Your task to perform on an android device: change keyboard looks Image 0: 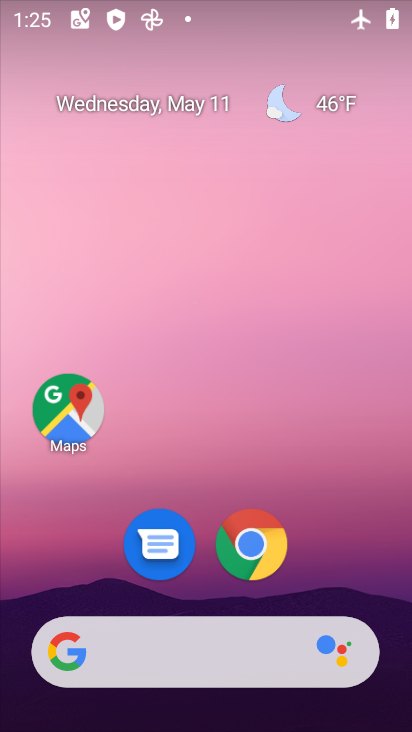
Step 0: drag from (395, 640) to (298, 11)
Your task to perform on an android device: change keyboard looks Image 1: 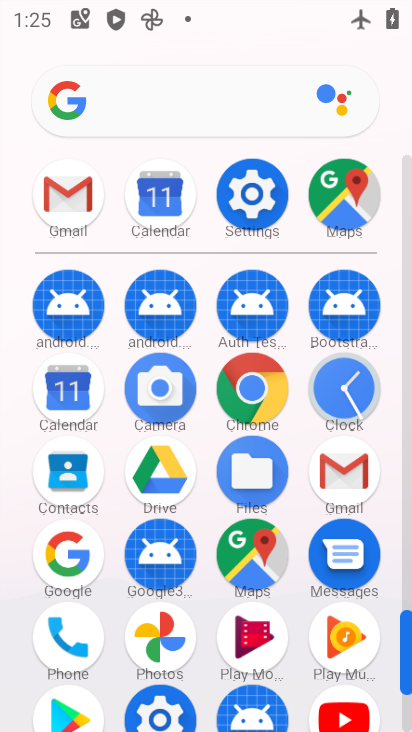
Step 1: click (409, 719)
Your task to perform on an android device: change keyboard looks Image 2: 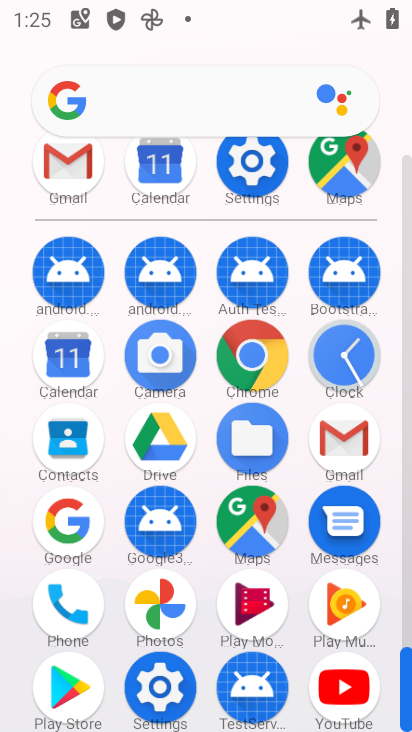
Step 2: click (160, 686)
Your task to perform on an android device: change keyboard looks Image 3: 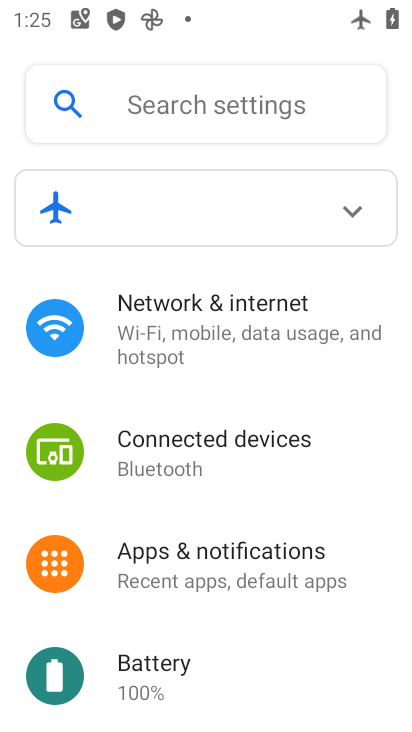
Step 3: drag from (370, 601) to (300, 91)
Your task to perform on an android device: change keyboard looks Image 4: 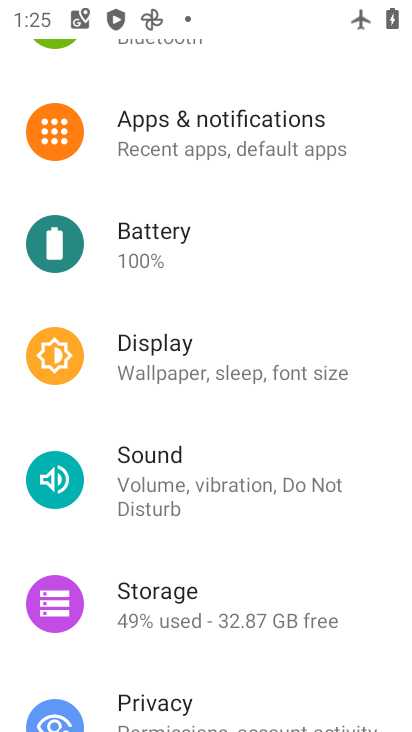
Step 4: drag from (346, 609) to (343, 148)
Your task to perform on an android device: change keyboard looks Image 5: 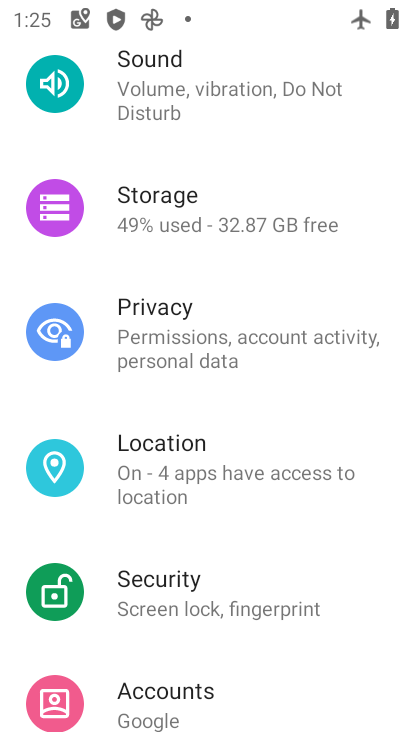
Step 5: drag from (344, 625) to (349, 137)
Your task to perform on an android device: change keyboard looks Image 6: 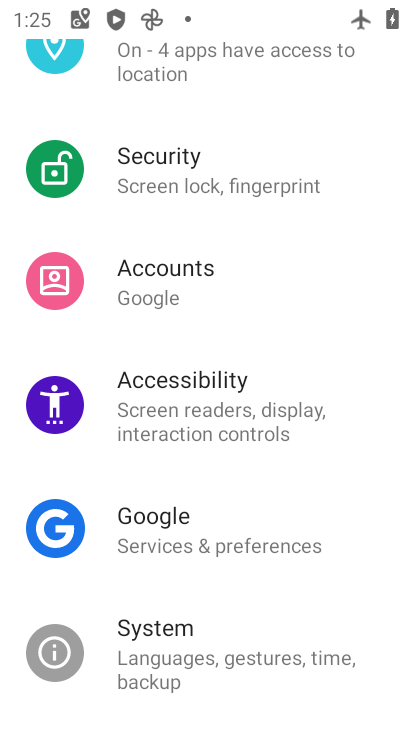
Step 6: drag from (347, 626) to (326, 129)
Your task to perform on an android device: change keyboard looks Image 7: 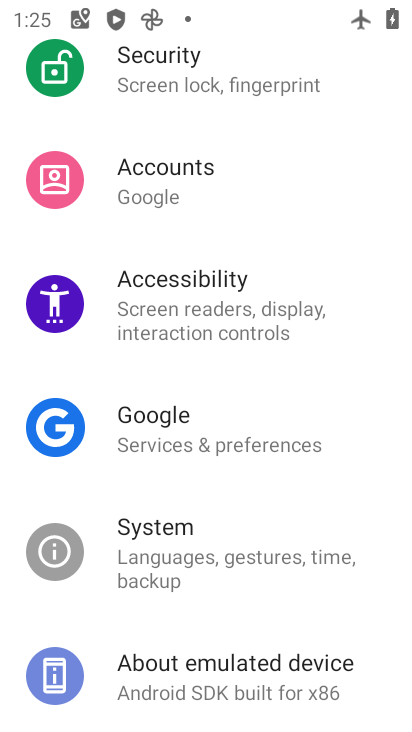
Step 7: click (159, 673)
Your task to perform on an android device: change keyboard looks Image 8: 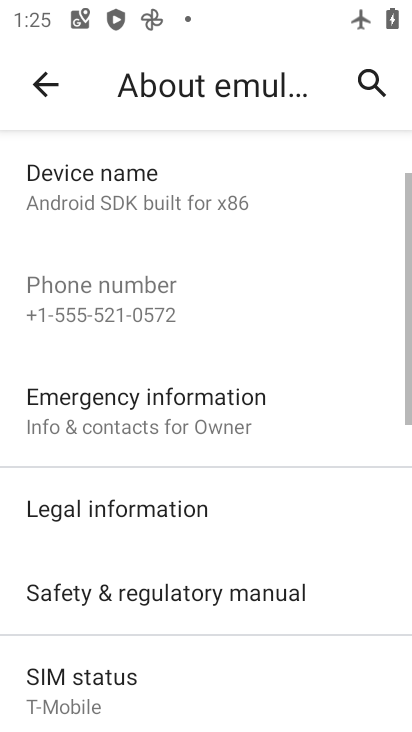
Step 8: press back button
Your task to perform on an android device: change keyboard looks Image 9: 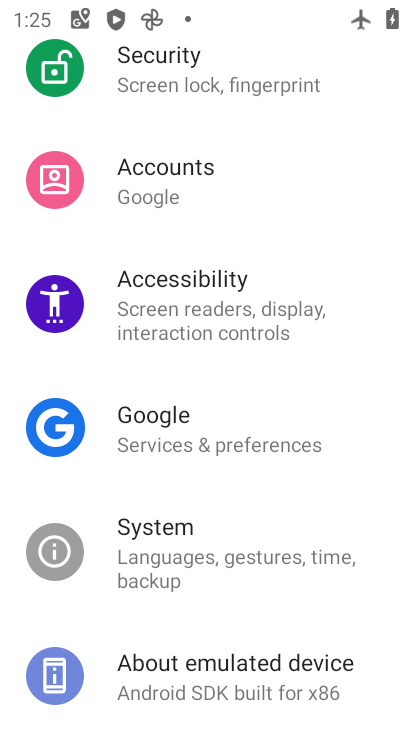
Step 9: click (164, 543)
Your task to perform on an android device: change keyboard looks Image 10: 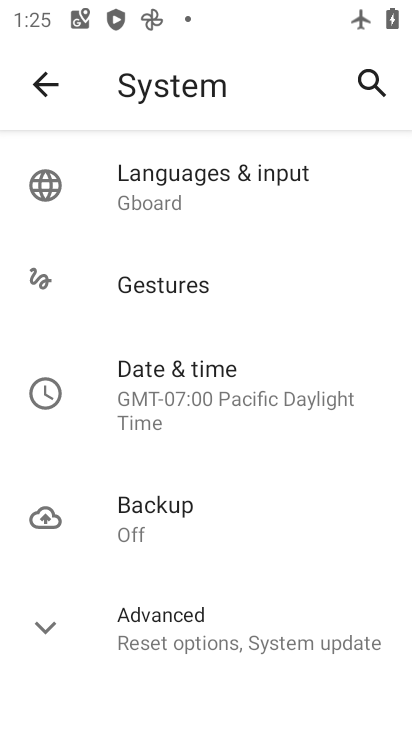
Step 10: click (160, 181)
Your task to perform on an android device: change keyboard looks Image 11: 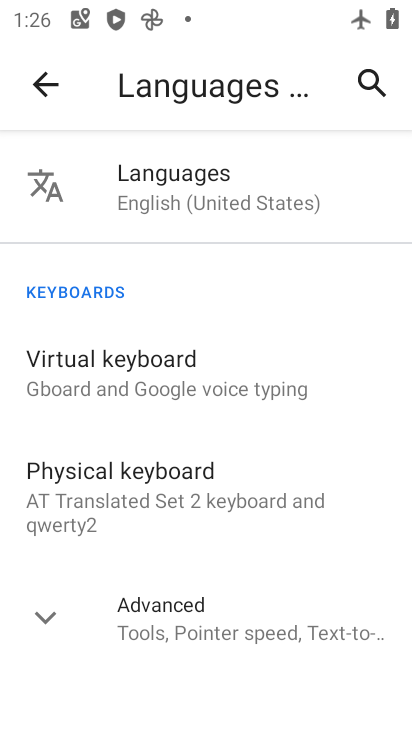
Step 11: click (135, 464)
Your task to perform on an android device: change keyboard looks Image 12: 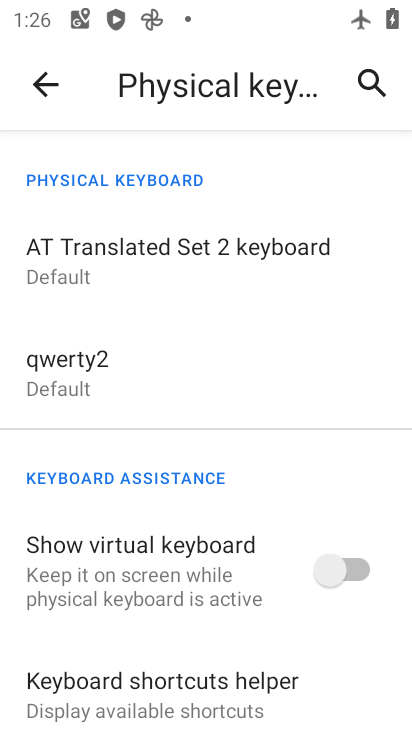
Step 12: click (64, 372)
Your task to perform on an android device: change keyboard looks Image 13: 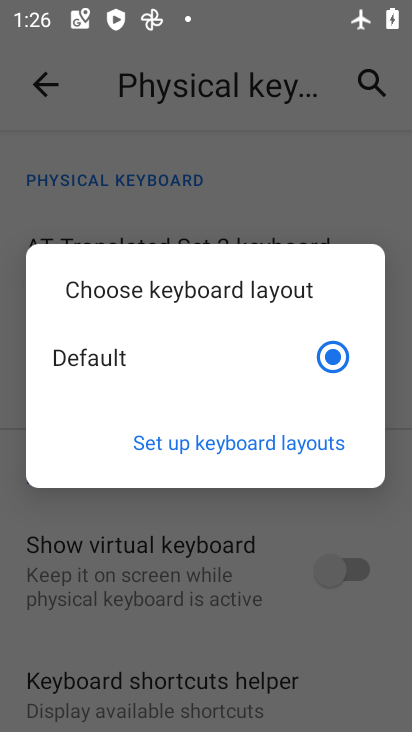
Step 13: click (223, 449)
Your task to perform on an android device: change keyboard looks Image 14: 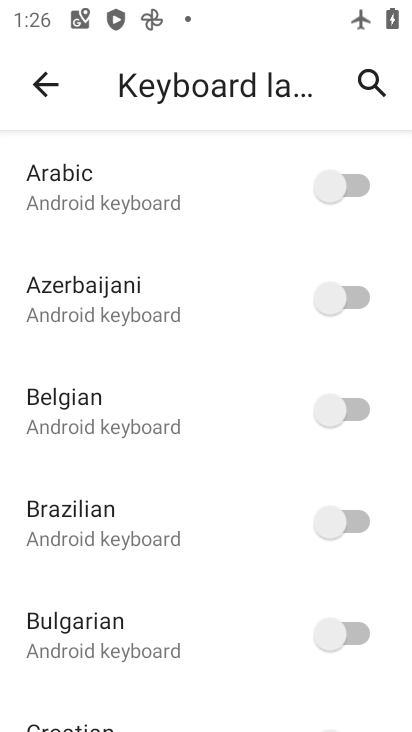
Step 14: drag from (281, 631) to (277, 202)
Your task to perform on an android device: change keyboard looks Image 15: 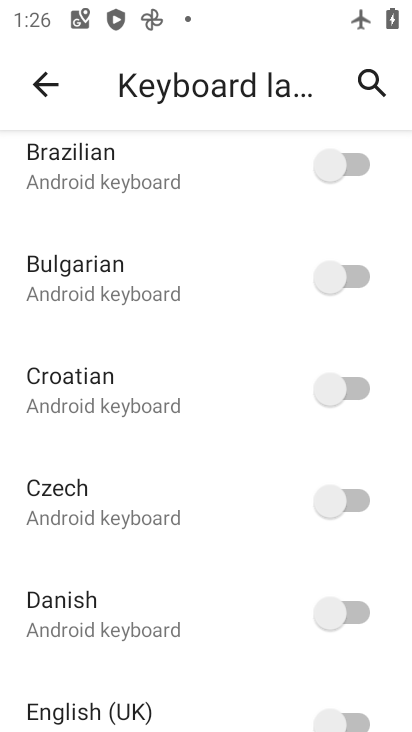
Step 15: click (359, 623)
Your task to perform on an android device: change keyboard looks Image 16: 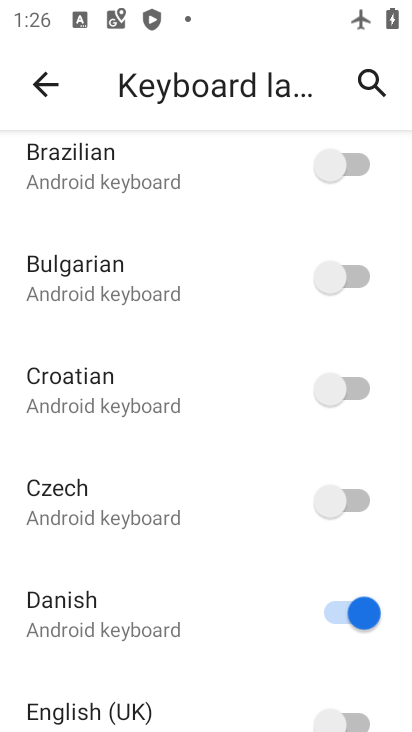
Step 16: task complete